Your task to perform on an android device: turn on airplane mode Image 0: 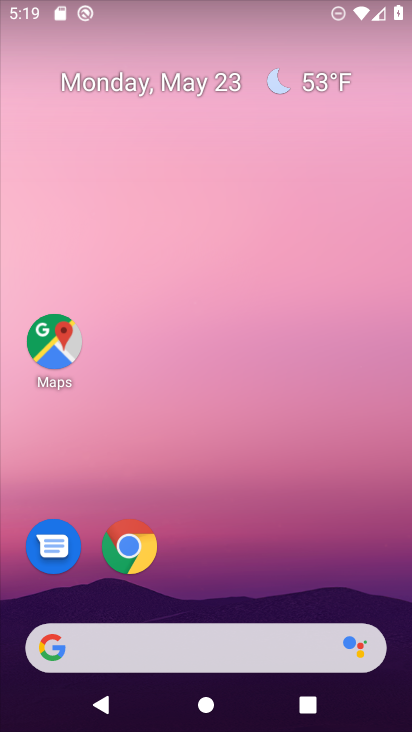
Step 0: drag from (224, 591) to (220, 118)
Your task to perform on an android device: turn on airplane mode Image 1: 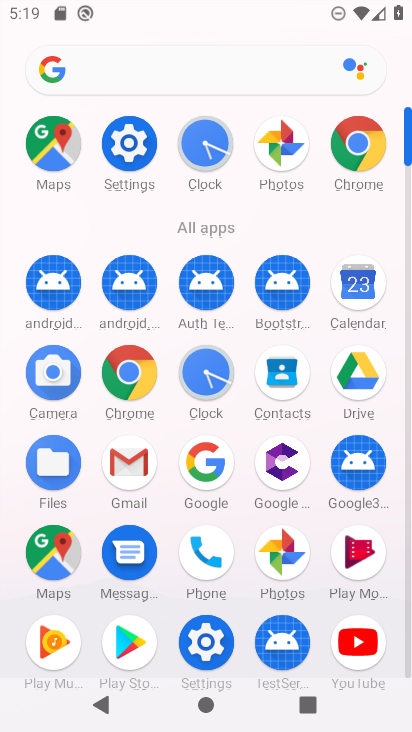
Step 1: click (137, 150)
Your task to perform on an android device: turn on airplane mode Image 2: 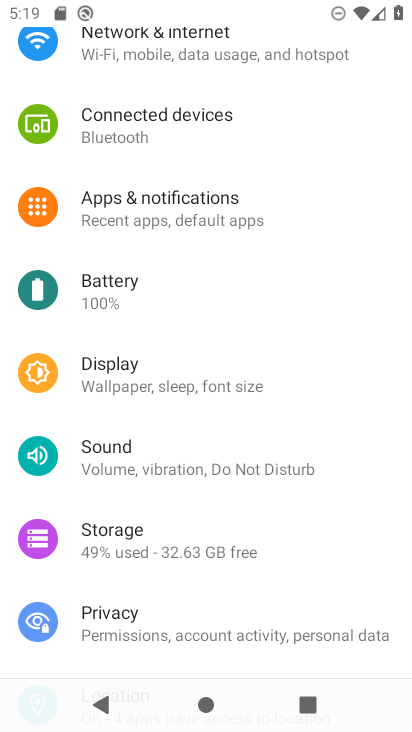
Step 2: drag from (330, 170) to (327, 495)
Your task to perform on an android device: turn on airplane mode Image 3: 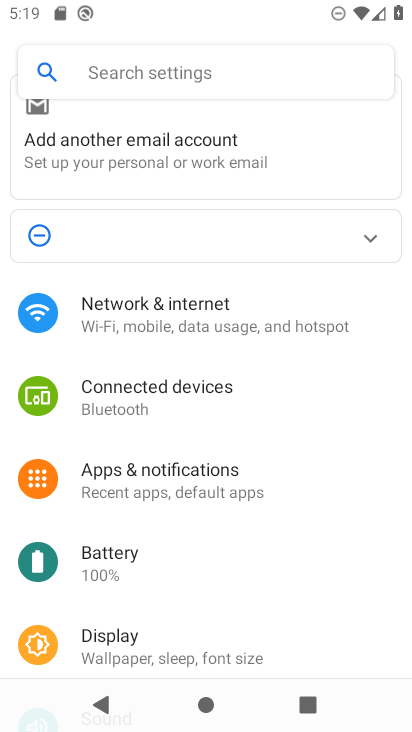
Step 3: click (250, 323)
Your task to perform on an android device: turn on airplane mode Image 4: 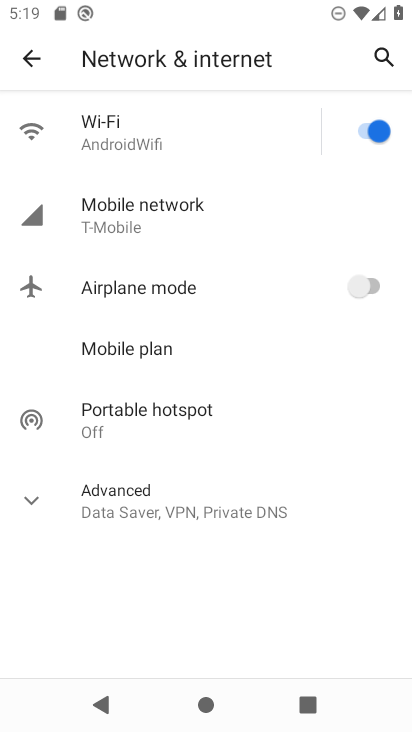
Step 4: click (377, 280)
Your task to perform on an android device: turn on airplane mode Image 5: 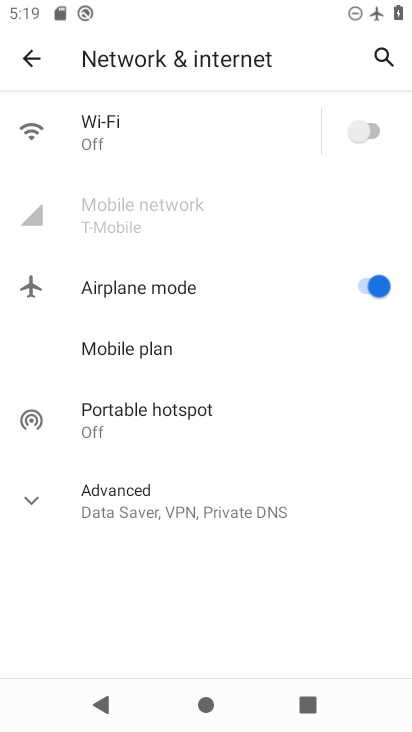
Step 5: task complete